Your task to perform on an android device: refresh tabs in the chrome app Image 0: 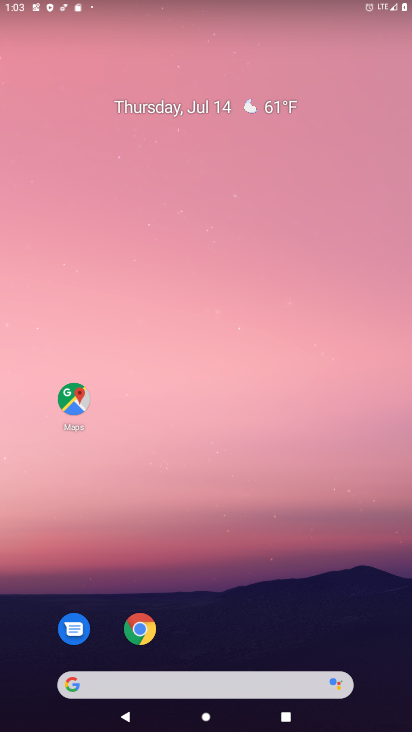
Step 0: click (143, 633)
Your task to perform on an android device: refresh tabs in the chrome app Image 1: 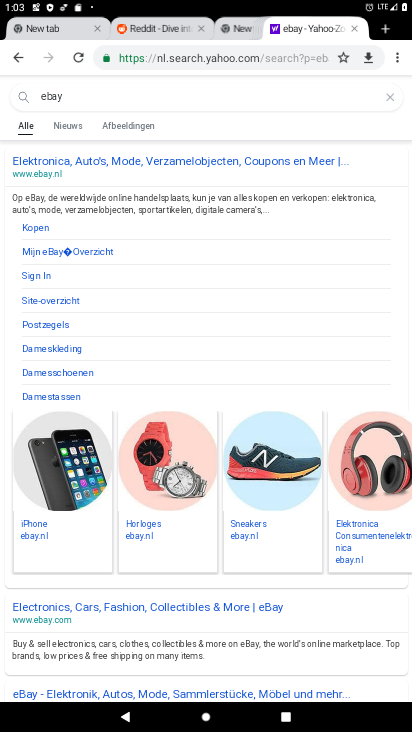
Step 1: click (73, 54)
Your task to perform on an android device: refresh tabs in the chrome app Image 2: 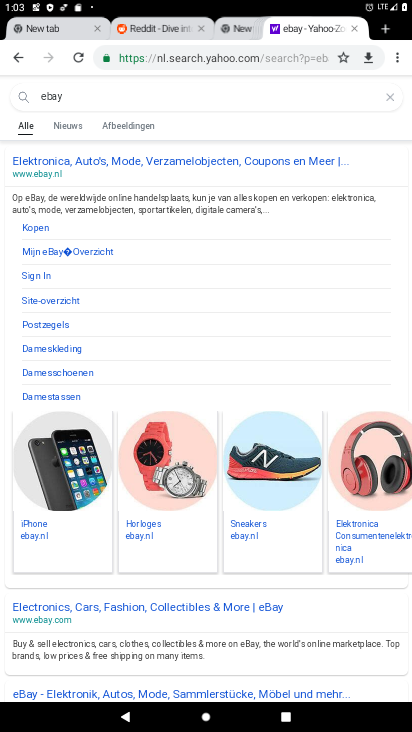
Step 2: task complete